Your task to perform on an android device: turn on priority inbox in the gmail app Image 0: 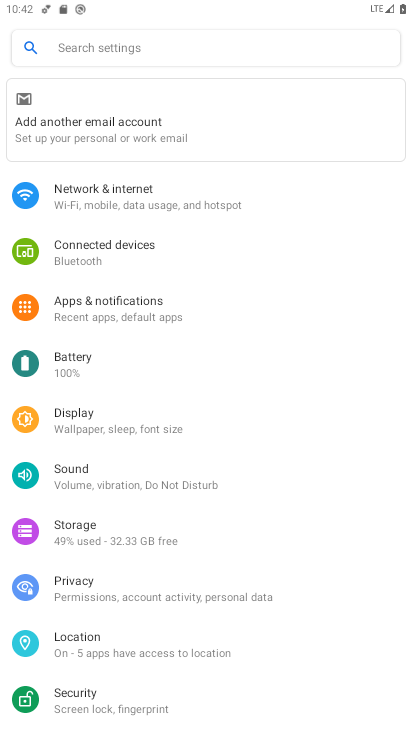
Step 0: press home button
Your task to perform on an android device: turn on priority inbox in the gmail app Image 1: 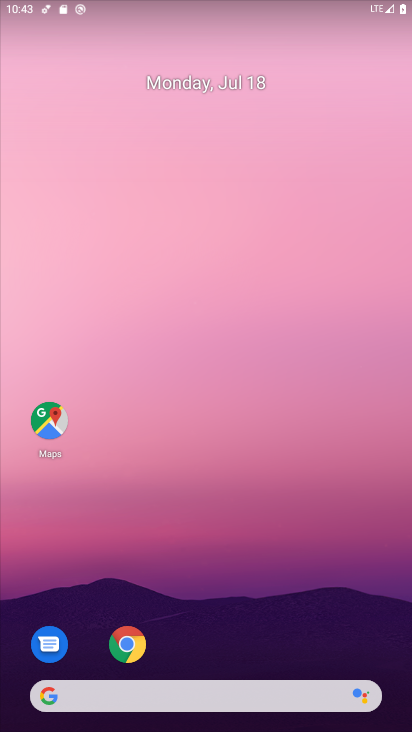
Step 1: drag from (361, 633) to (363, 129)
Your task to perform on an android device: turn on priority inbox in the gmail app Image 2: 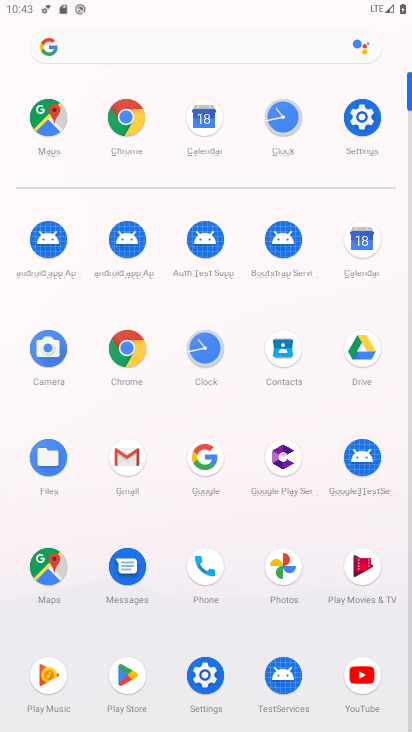
Step 2: click (129, 462)
Your task to perform on an android device: turn on priority inbox in the gmail app Image 3: 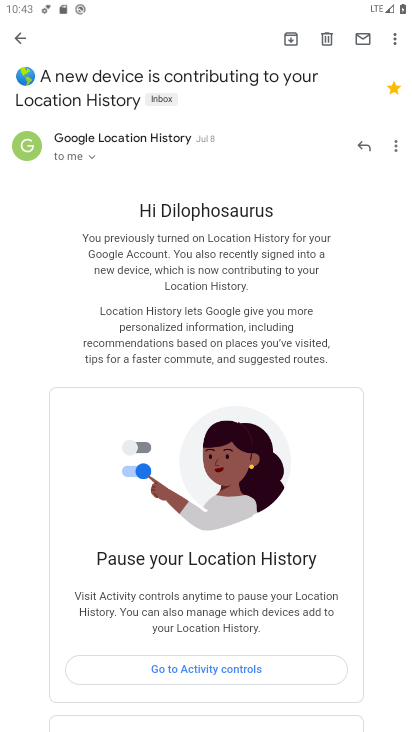
Step 3: press back button
Your task to perform on an android device: turn on priority inbox in the gmail app Image 4: 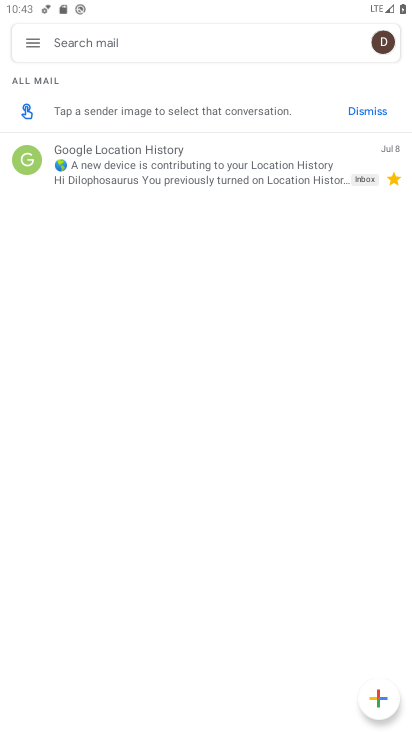
Step 4: click (39, 46)
Your task to perform on an android device: turn on priority inbox in the gmail app Image 5: 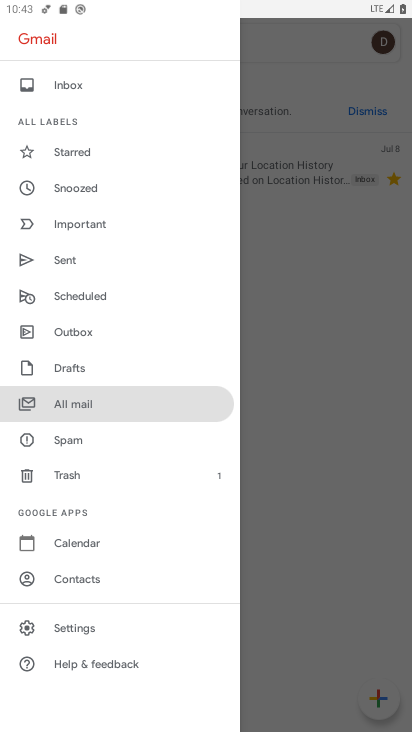
Step 5: drag from (156, 469) to (169, 391)
Your task to perform on an android device: turn on priority inbox in the gmail app Image 6: 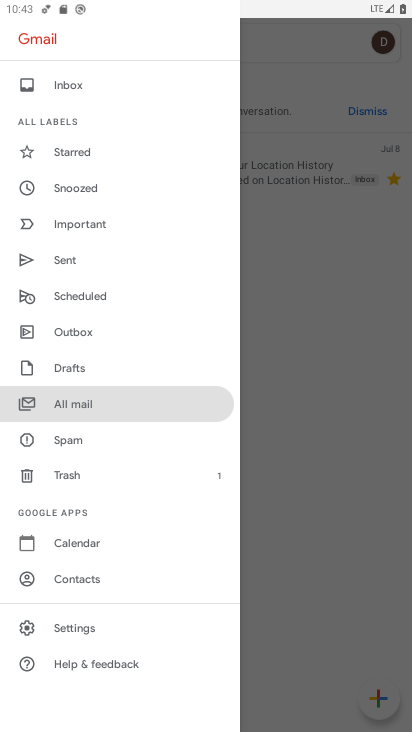
Step 6: click (130, 629)
Your task to perform on an android device: turn on priority inbox in the gmail app Image 7: 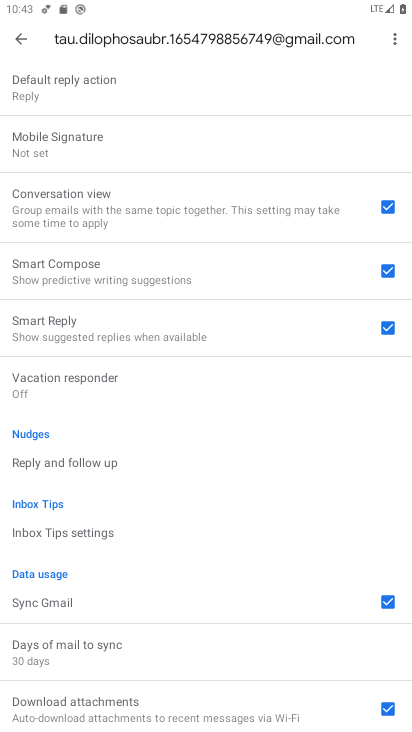
Step 7: drag from (238, 326) to (239, 442)
Your task to perform on an android device: turn on priority inbox in the gmail app Image 8: 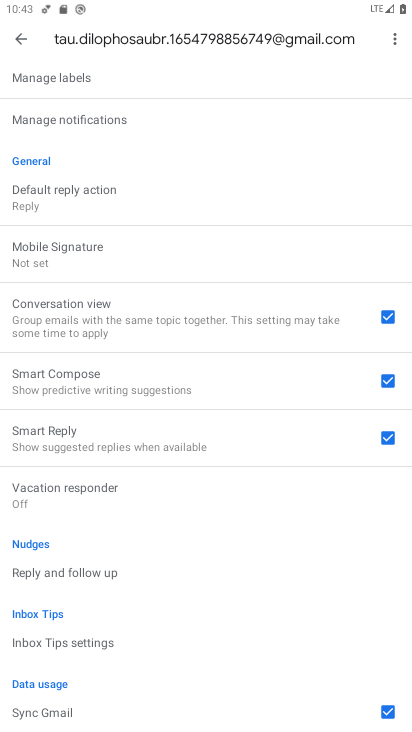
Step 8: drag from (269, 269) to (272, 429)
Your task to perform on an android device: turn on priority inbox in the gmail app Image 9: 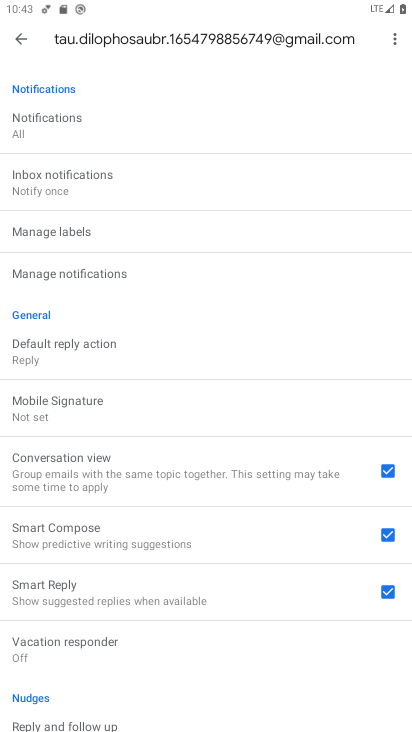
Step 9: drag from (290, 289) to (290, 408)
Your task to perform on an android device: turn on priority inbox in the gmail app Image 10: 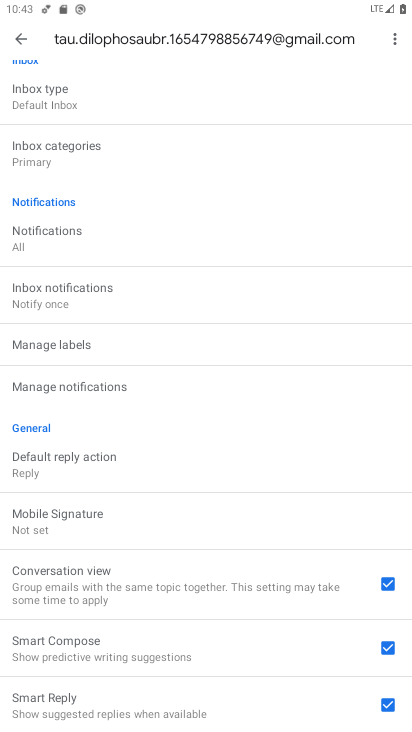
Step 10: drag from (296, 227) to (294, 361)
Your task to perform on an android device: turn on priority inbox in the gmail app Image 11: 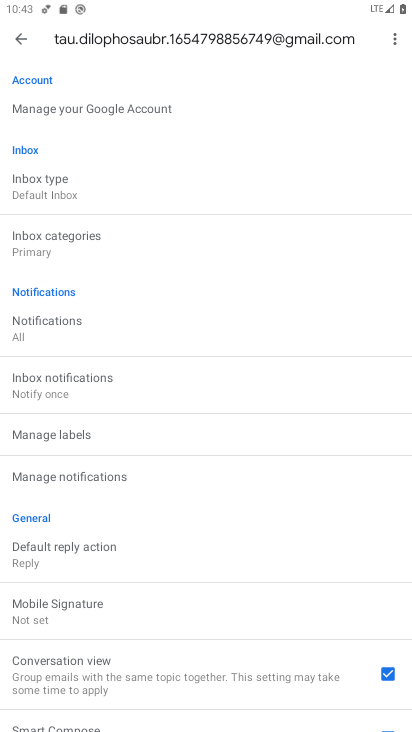
Step 11: drag from (281, 233) to (281, 361)
Your task to perform on an android device: turn on priority inbox in the gmail app Image 12: 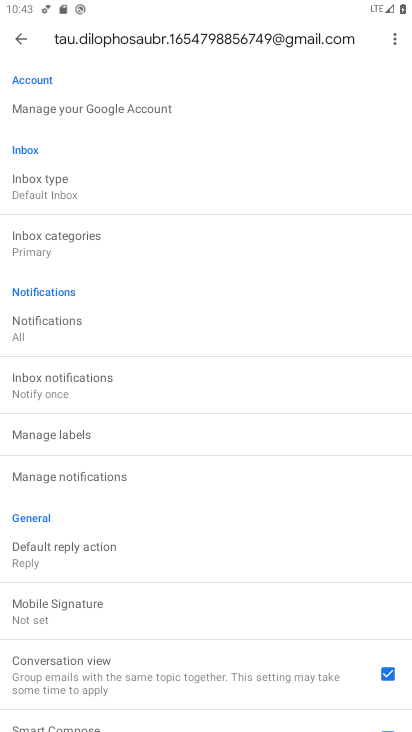
Step 12: click (118, 197)
Your task to perform on an android device: turn on priority inbox in the gmail app Image 13: 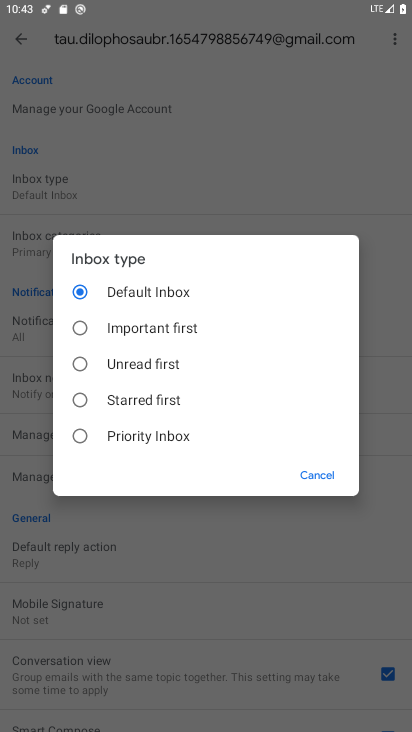
Step 13: click (161, 432)
Your task to perform on an android device: turn on priority inbox in the gmail app Image 14: 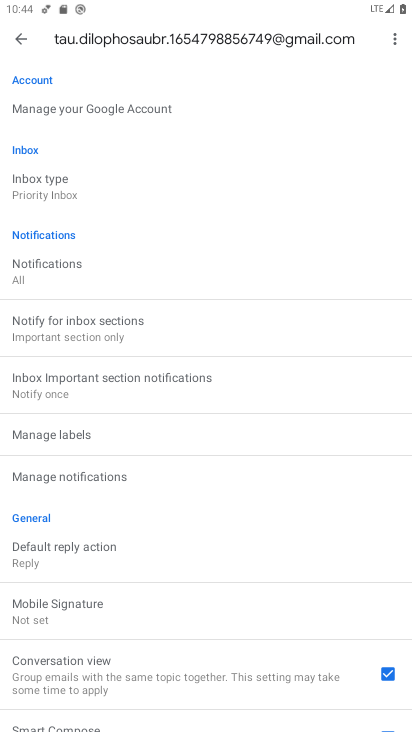
Step 14: task complete